Your task to perform on an android device: change notifications settings Image 0: 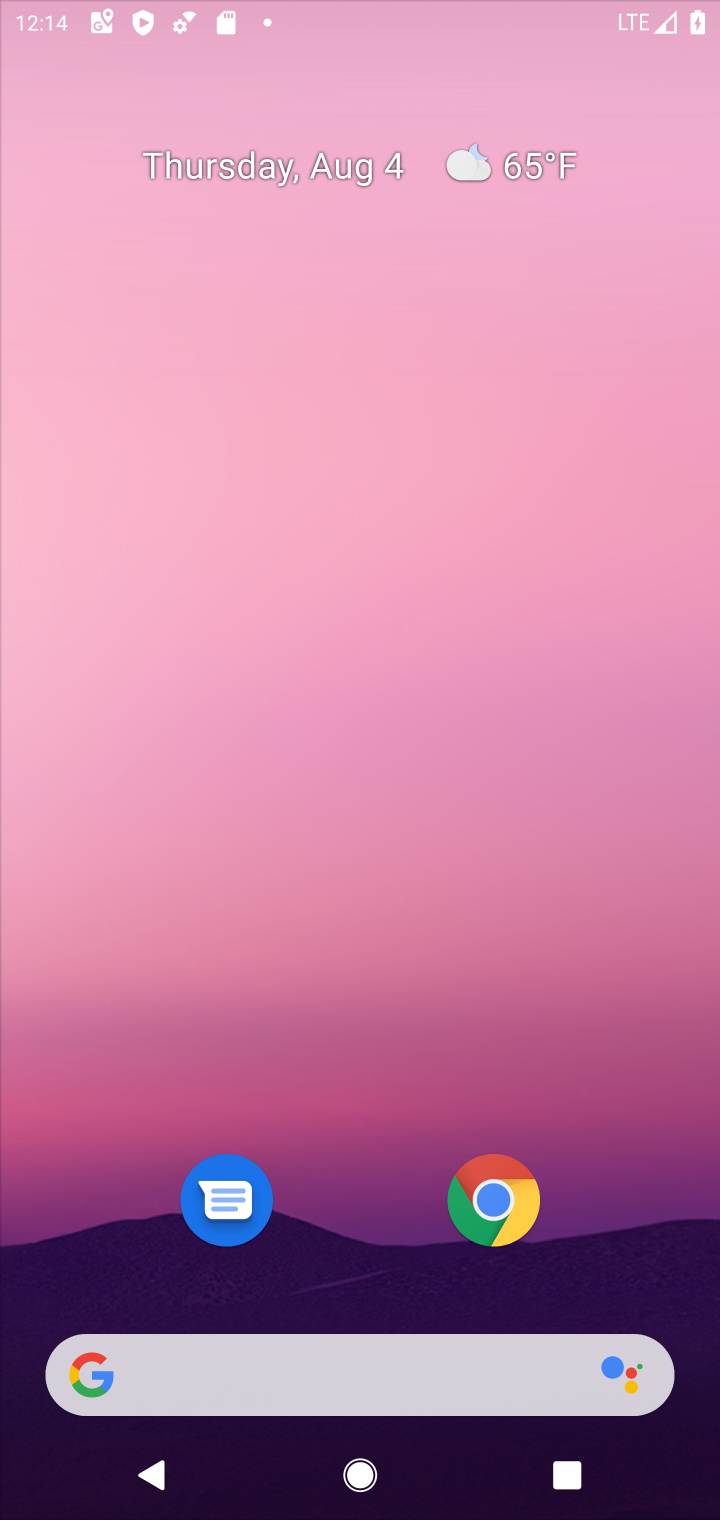
Step 0: press home button
Your task to perform on an android device: change notifications settings Image 1: 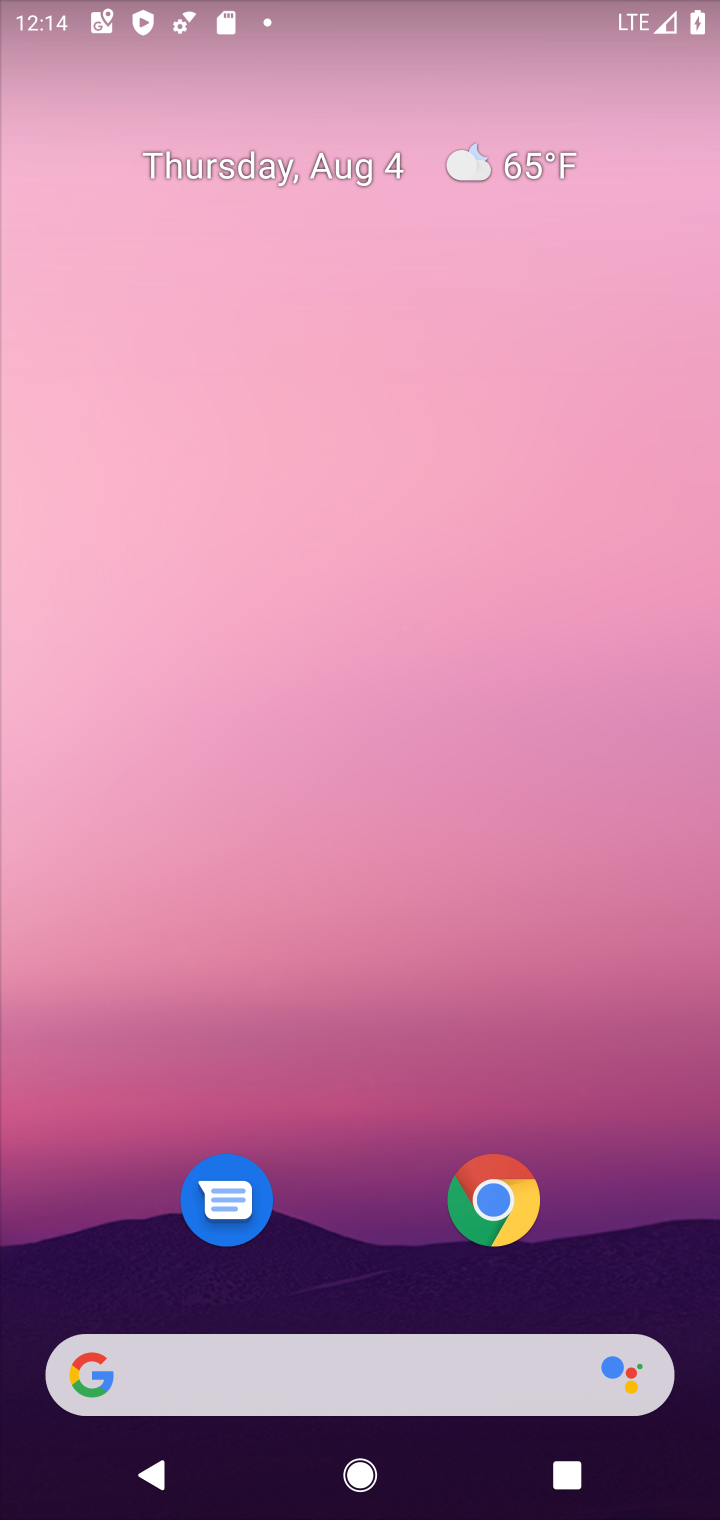
Step 1: drag from (376, 1262) to (346, 90)
Your task to perform on an android device: change notifications settings Image 2: 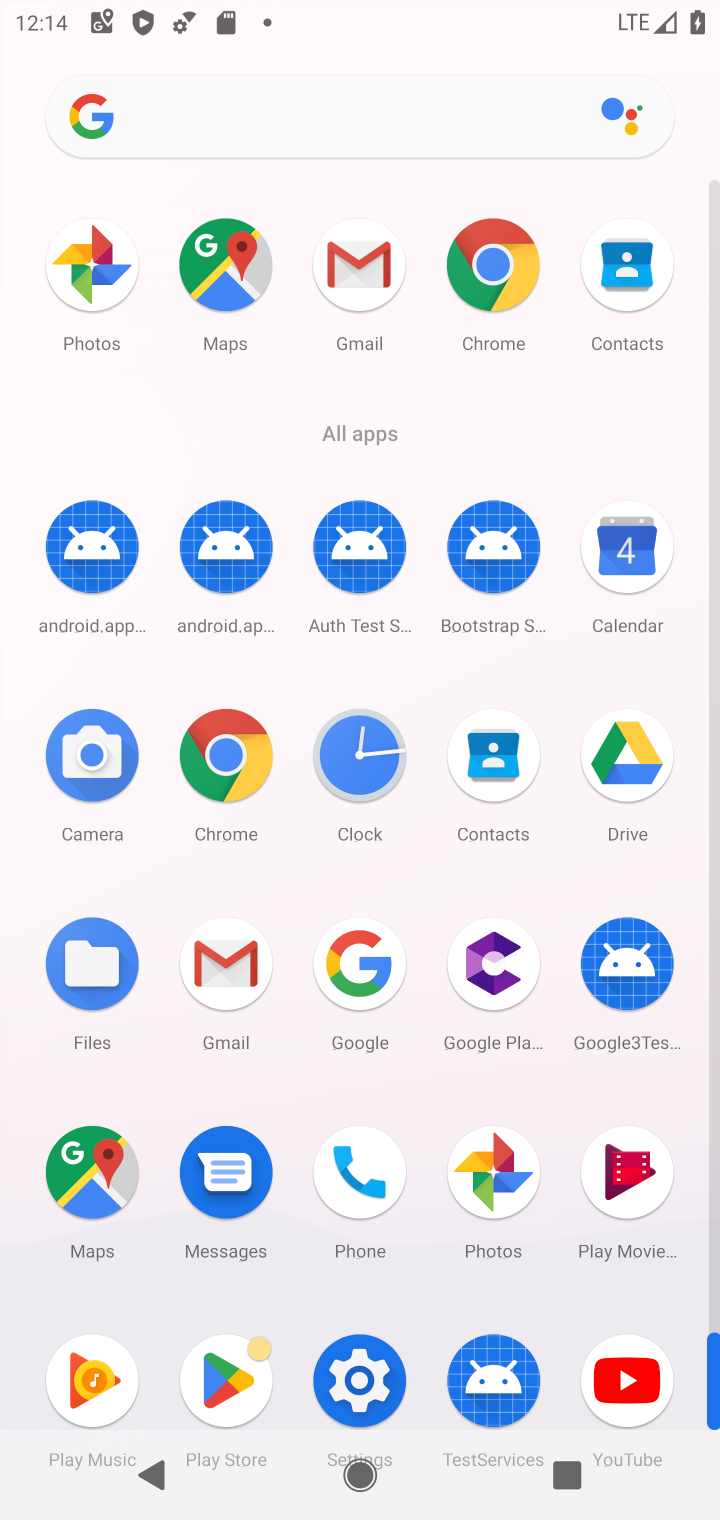
Step 2: click (362, 1363)
Your task to perform on an android device: change notifications settings Image 3: 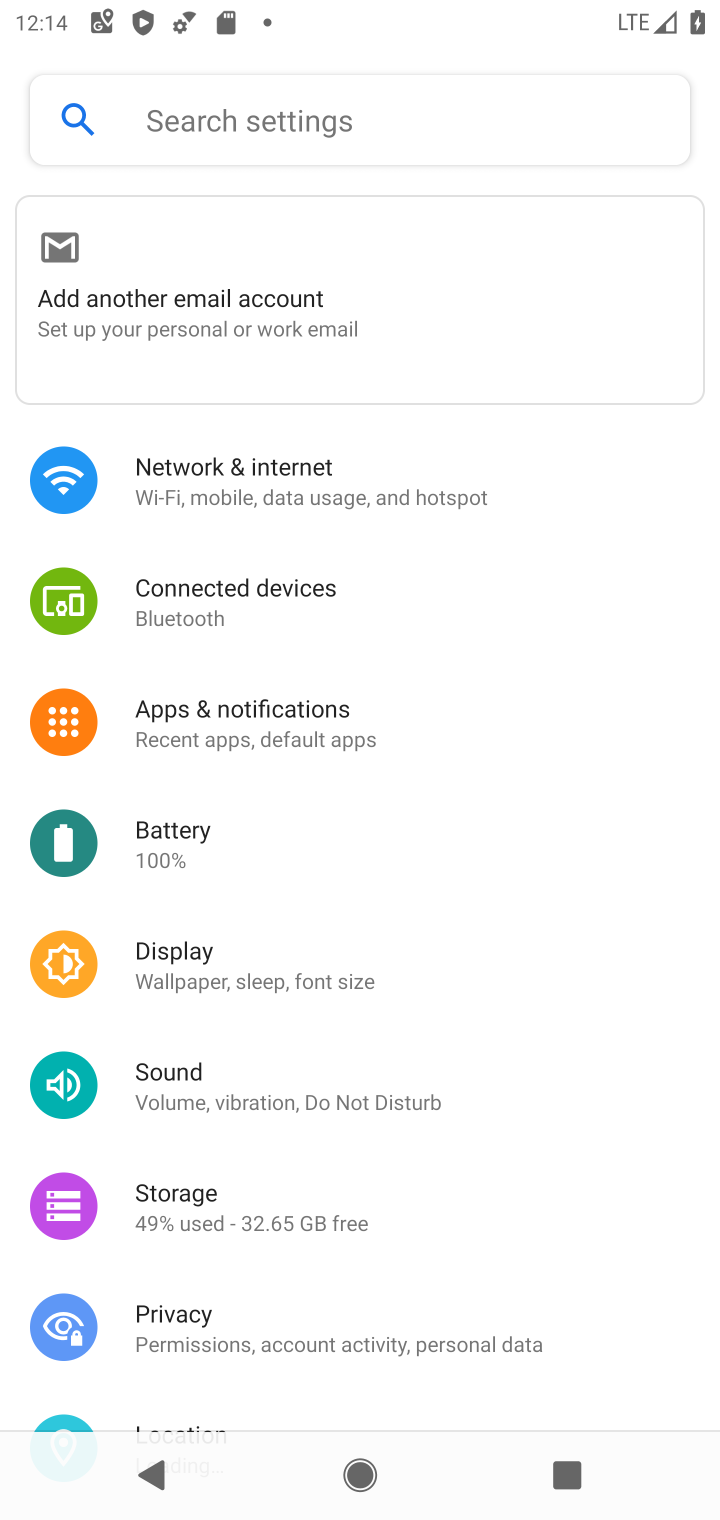
Step 3: click (209, 709)
Your task to perform on an android device: change notifications settings Image 4: 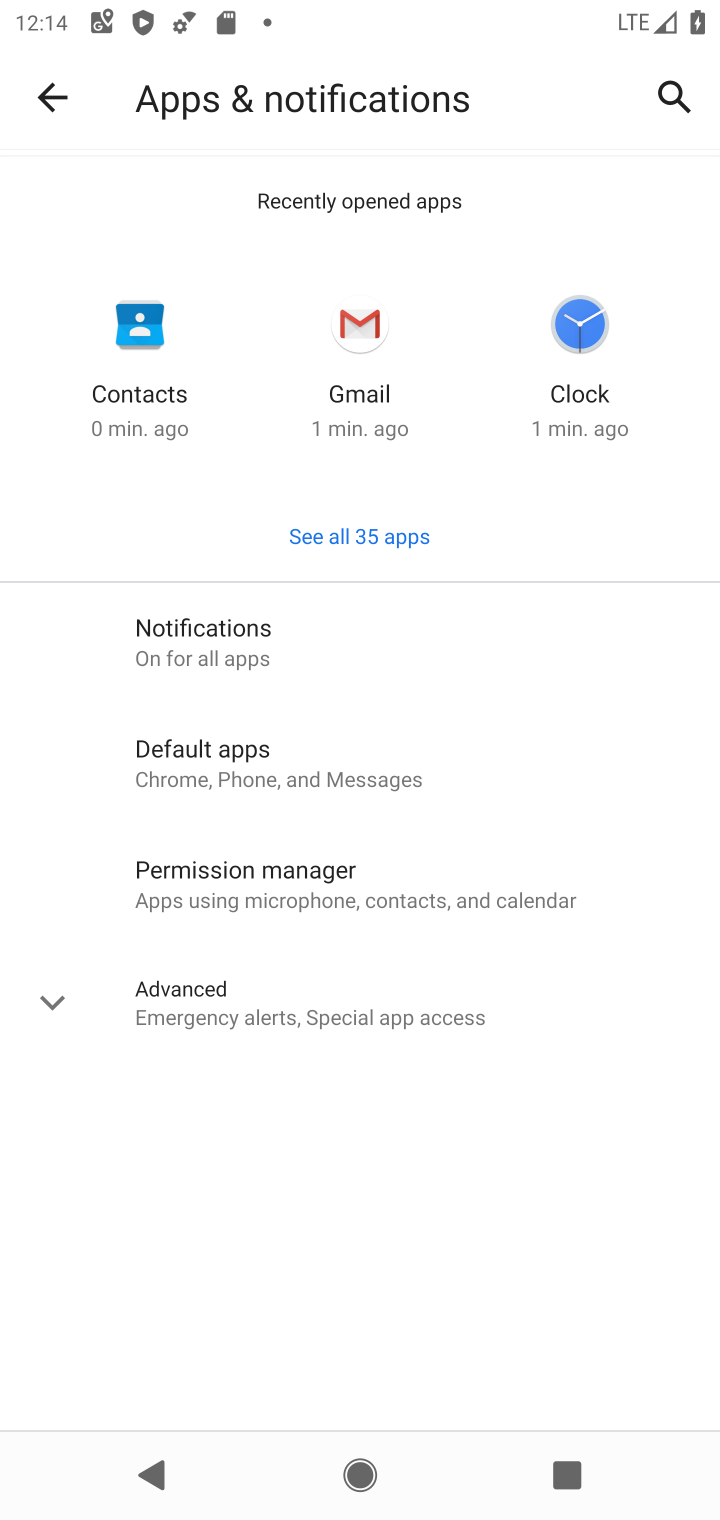
Step 4: click (229, 616)
Your task to perform on an android device: change notifications settings Image 5: 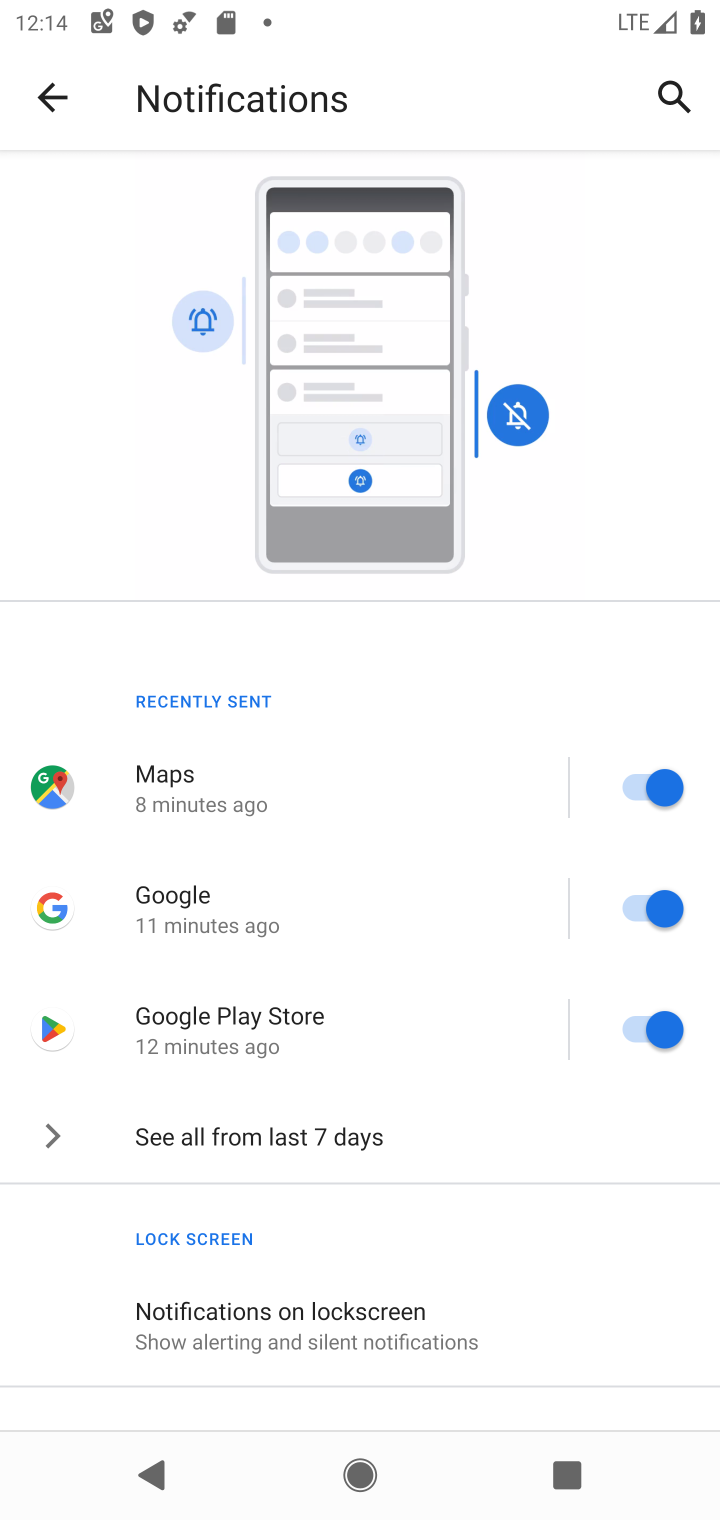
Step 5: task complete